Your task to perform on an android device: toggle translation in the chrome app Image 0: 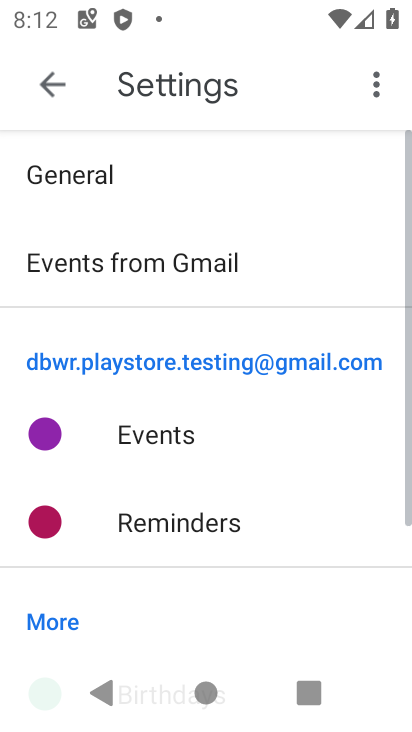
Step 0: drag from (267, 664) to (122, 125)
Your task to perform on an android device: toggle translation in the chrome app Image 1: 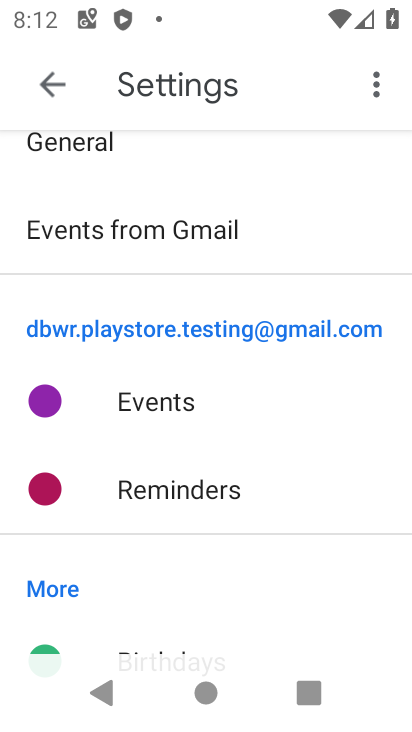
Step 1: click (50, 108)
Your task to perform on an android device: toggle translation in the chrome app Image 2: 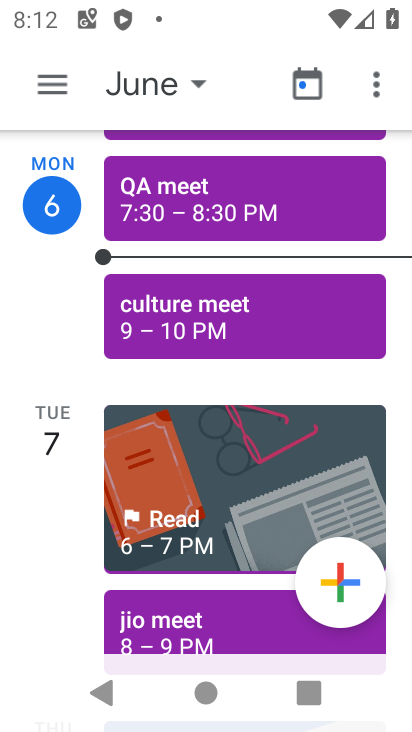
Step 2: press back button
Your task to perform on an android device: toggle translation in the chrome app Image 3: 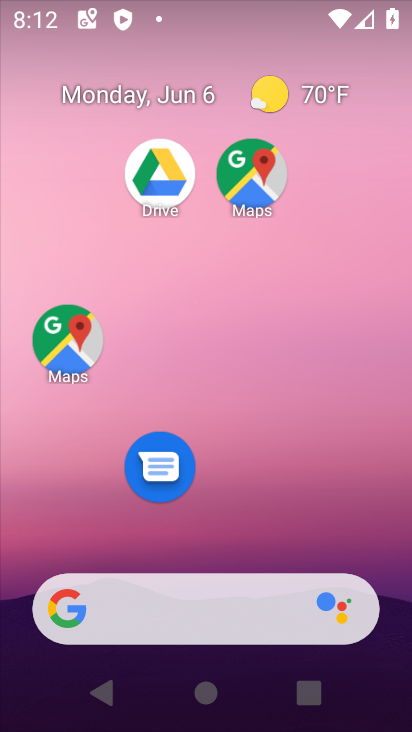
Step 3: drag from (259, 676) to (122, 56)
Your task to perform on an android device: toggle translation in the chrome app Image 4: 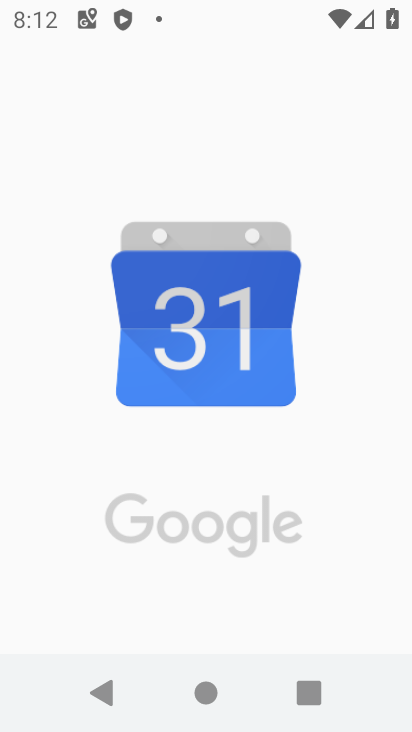
Step 4: drag from (275, 643) to (157, 8)
Your task to perform on an android device: toggle translation in the chrome app Image 5: 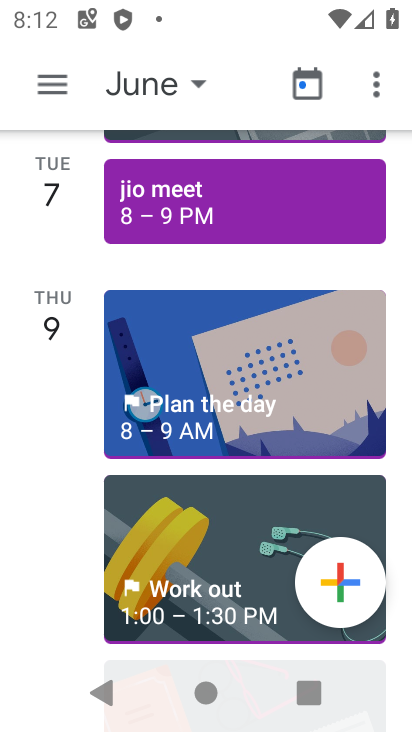
Step 5: press back button
Your task to perform on an android device: toggle translation in the chrome app Image 6: 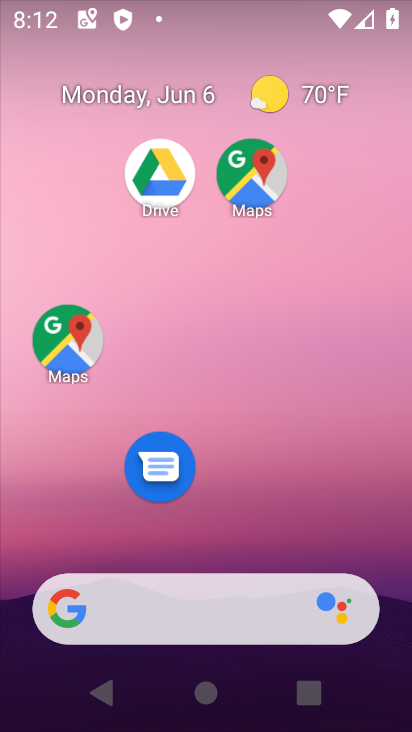
Step 6: drag from (264, 714) to (253, 83)
Your task to perform on an android device: toggle translation in the chrome app Image 7: 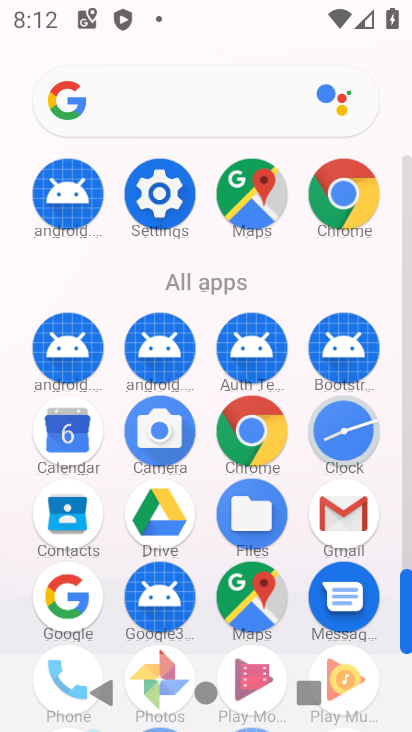
Step 7: click (345, 205)
Your task to perform on an android device: toggle translation in the chrome app Image 8: 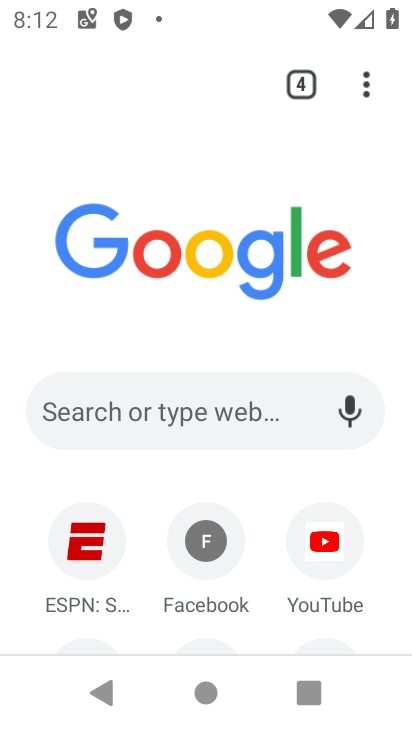
Step 8: press back button
Your task to perform on an android device: toggle translation in the chrome app Image 9: 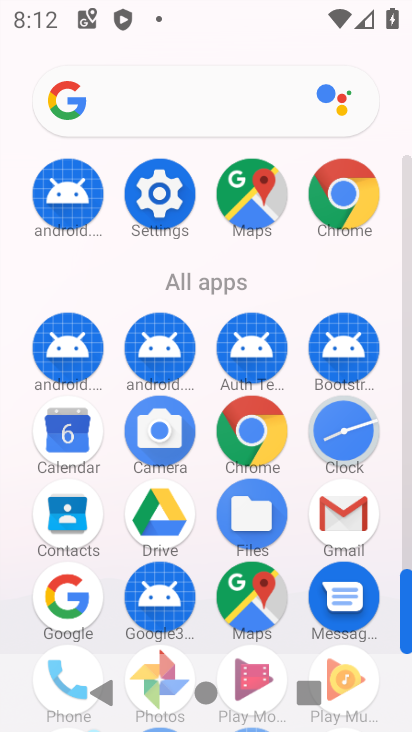
Step 9: click (336, 198)
Your task to perform on an android device: toggle translation in the chrome app Image 10: 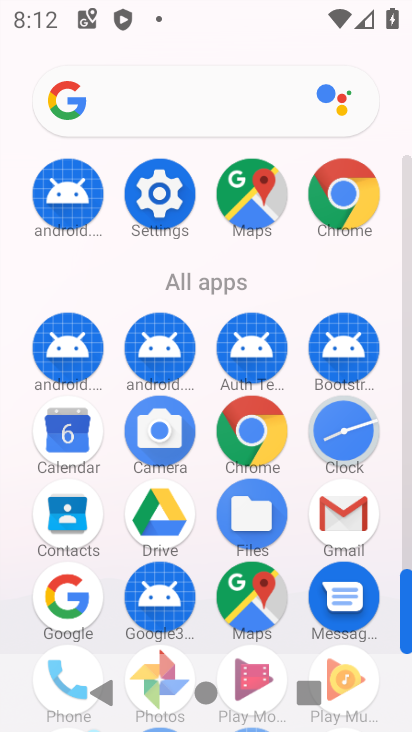
Step 10: click (336, 198)
Your task to perform on an android device: toggle translation in the chrome app Image 11: 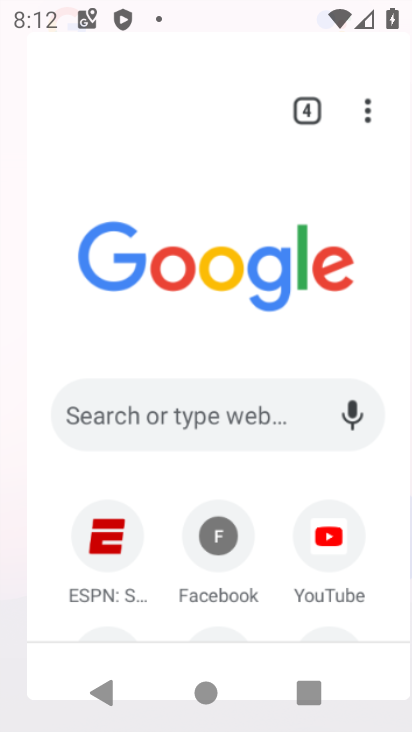
Step 11: click (336, 198)
Your task to perform on an android device: toggle translation in the chrome app Image 12: 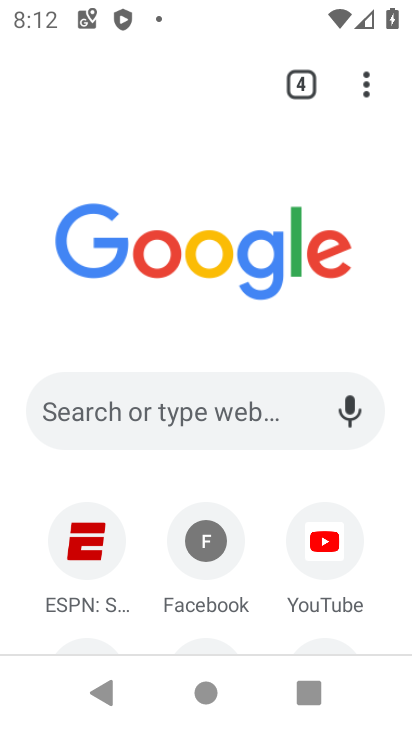
Step 12: click (365, 85)
Your task to perform on an android device: toggle translation in the chrome app Image 13: 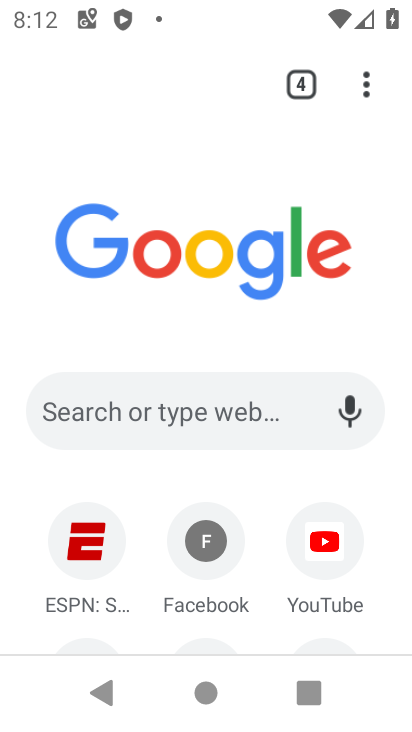
Step 13: click (368, 97)
Your task to perform on an android device: toggle translation in the chrome app Image 14: 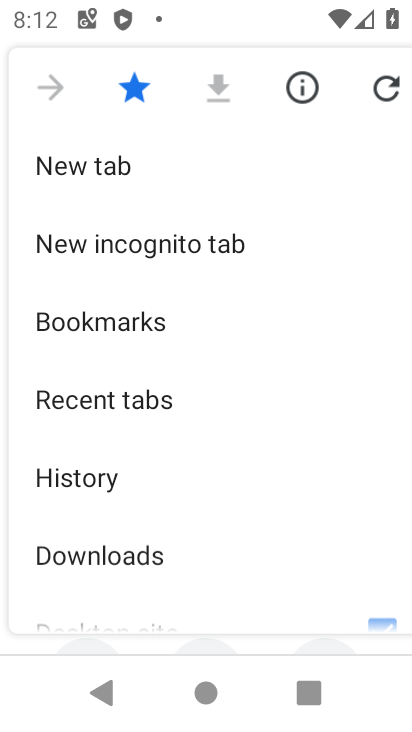
Step 14: drag from (364, 94) to (119, 309)
Your task to perform on an android device: toggle translation in the chrome app Image 15: 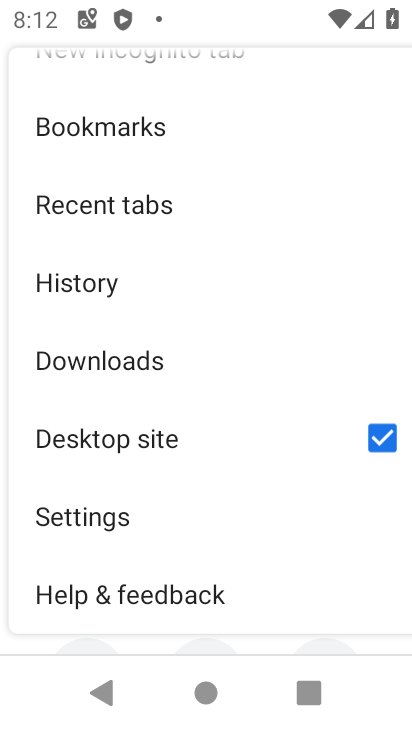
Step 15: click (78, 605)
Your task to perform on an android device: toggle translation in the chrome app Image 16: 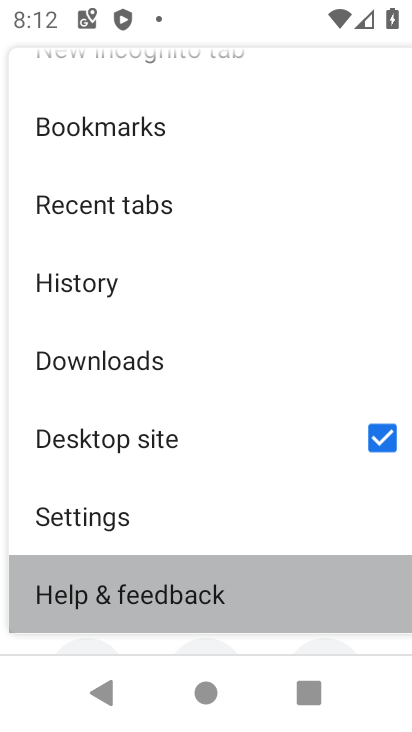
Step 16: click (77, 606)
Your task to perform on an android device: toggle translation in the chrome app Image 17: 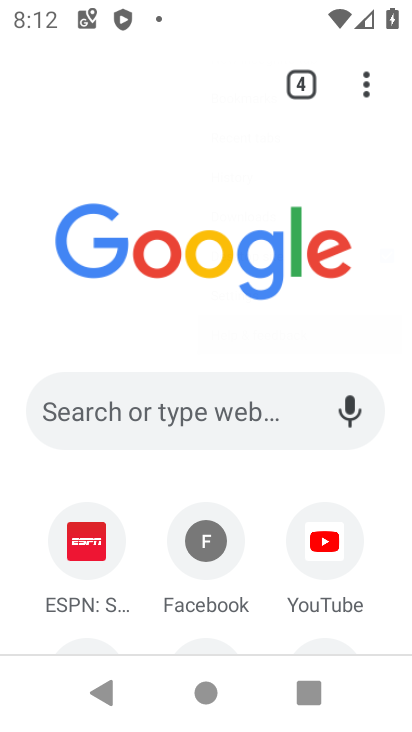
Step 17: click (77, 606)
Your task to perform on an android device: toggle translation in the chrome app Image 18: 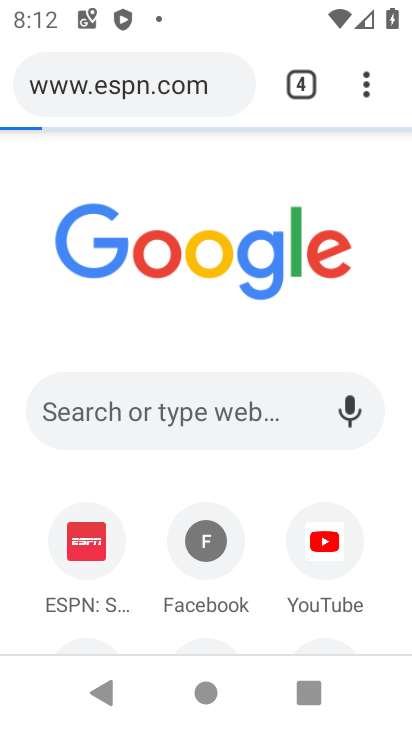
Step 18: click (78, 603)
Your task to perform on an android device: toggle translation in the chrome app Image 19: 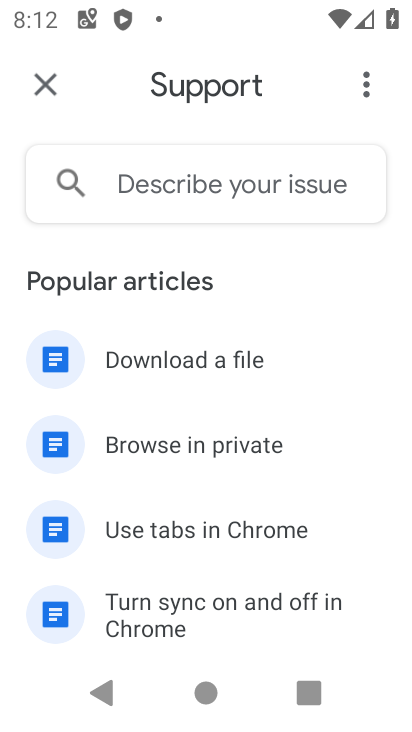
Step 19: click (32, 85)
Your task to perform on an android device: toggle translation in the chrome app Image 20: 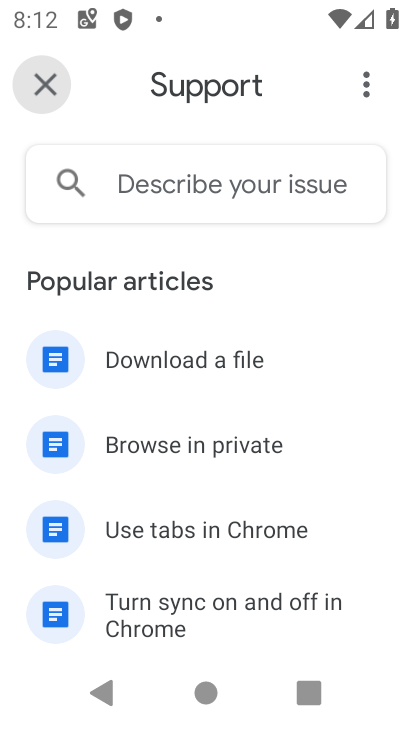
Step 20: click (38, 86)
Your task to perform on an android device: toggle translation in the chrome app Image 21: 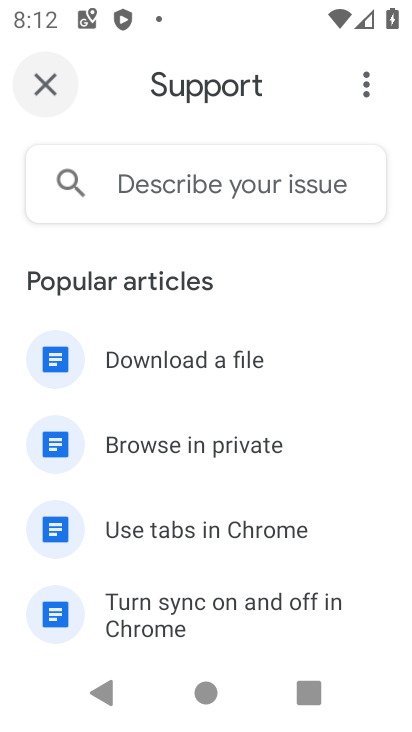
Step 21: click (43, 86)
Your task to perform on an android device: toggle translation in the chrome app Image 22: 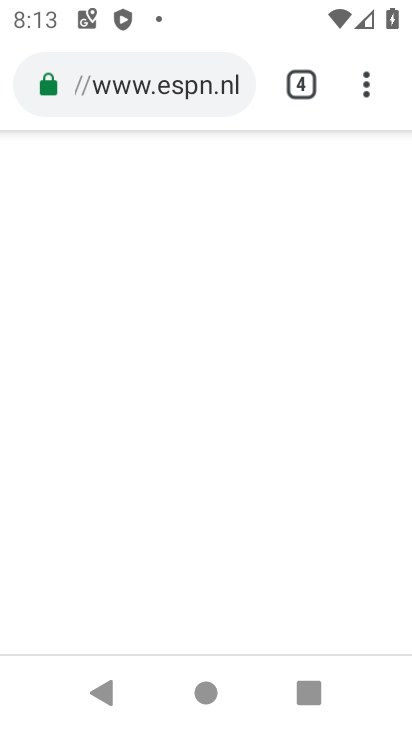
Step 22: click (361, 90)
Your task to perform on an android device: toggle translation in the chrome app Image 23: 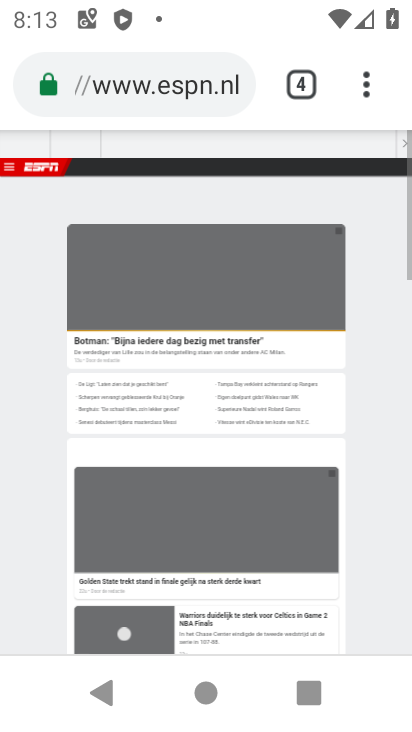
Step 23: drag from (363, 88) to (323, 203)
Your task to perform on an android device: toggle translation in the chrome app Image 24: 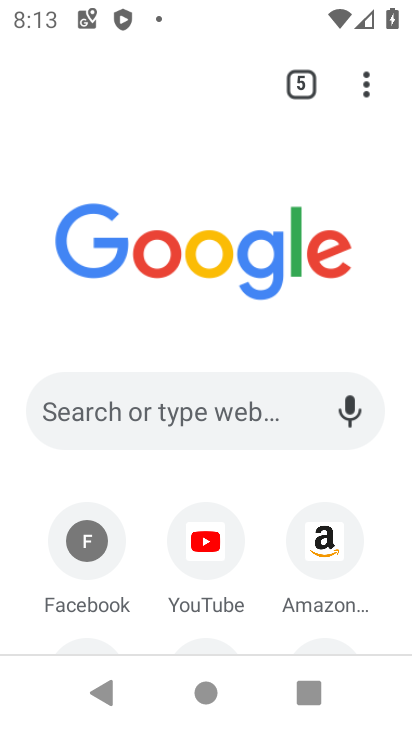
Step 24: drag from (369, 89) to (77, 519)
Your task to perform on an android device: toggle translation in the chrome app Image 25: 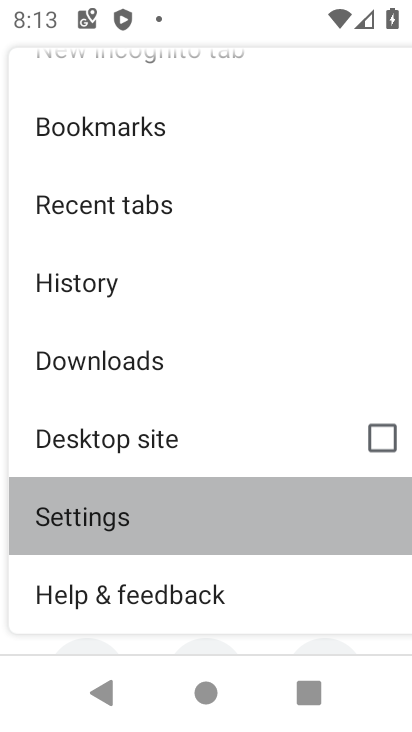
Step 25: click (77, 519)
Your task to perform on an android device: toggle translation in the chrome app Image 26: 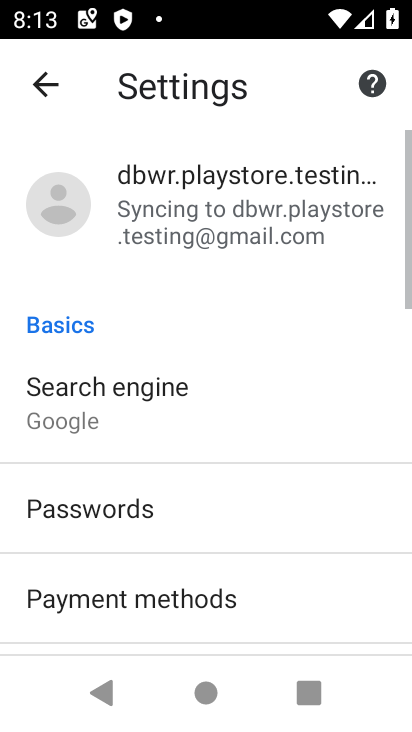
Step 26: click (125, 86)
Your task to perform on an android device: toggle translation in the chrome app Image 27: 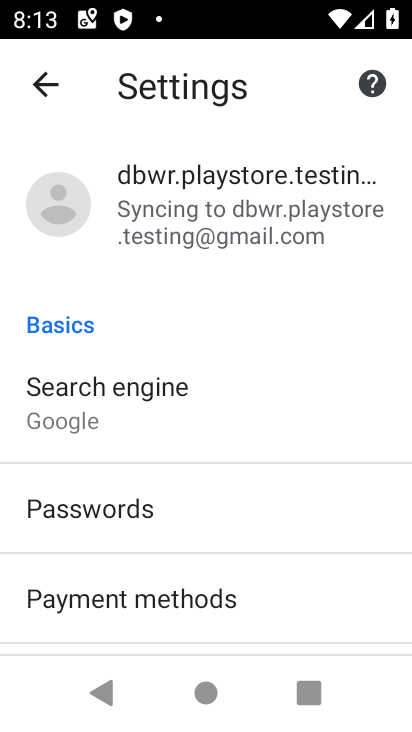
Step 27: drag from (126, 434) to (122, 172)
Your task to perform on an android device: toggle translation in the chrome app Image 28: 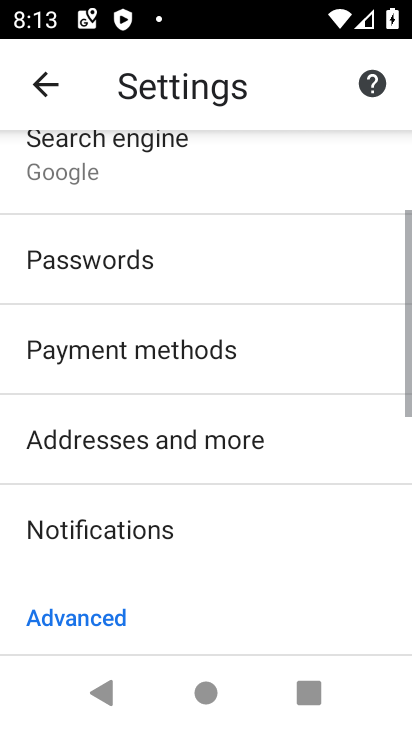
Step 28: drag from (165, 436) to (165, 199)
Your task to perform on an android device: toggle translation in the chrome app Image 29: 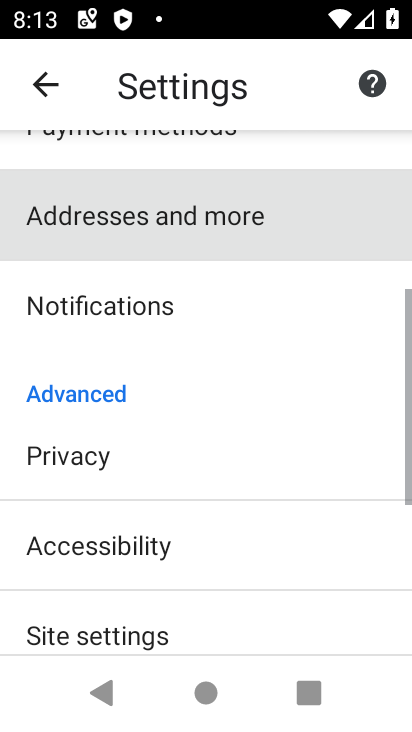
Step 29: drag from (156, 495) to (156, 193)
Your task to perform on an android device: toggle translation in the chrome app Image 30: 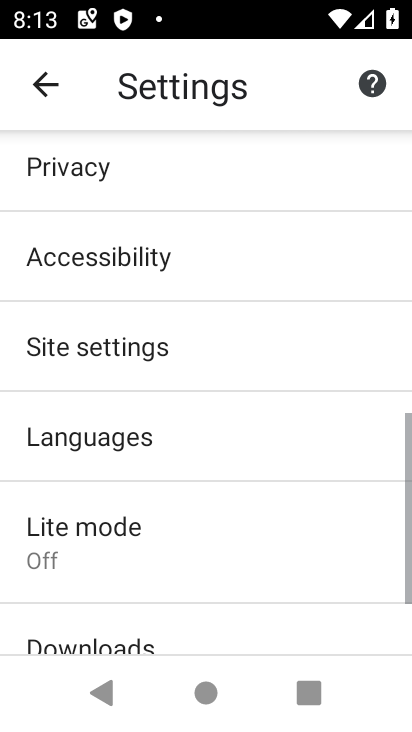
Step 30: drag from (130, 485) to (165, 209)
Your task to perform on an android device: toggle translation in the chrome app Image 31: 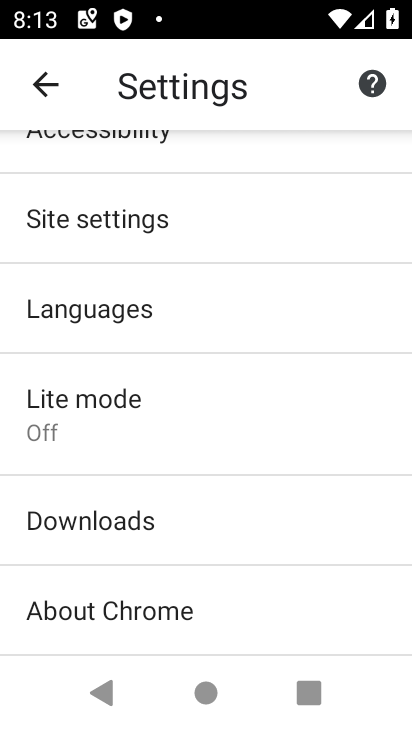
Step 31: click (93, 317)
Your task to perform on an android device: toggle translation in the chrome app Image 32: 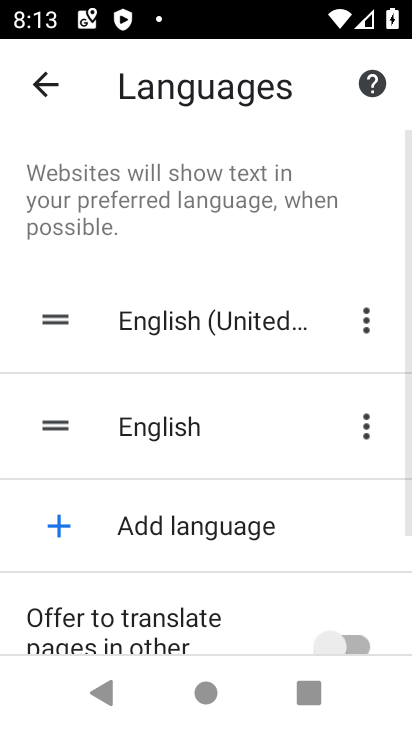
Step 32: drag from (251, 532) to (246, 269)
Your task to perform on an android device: toggle translation in the chrome app Image 33: 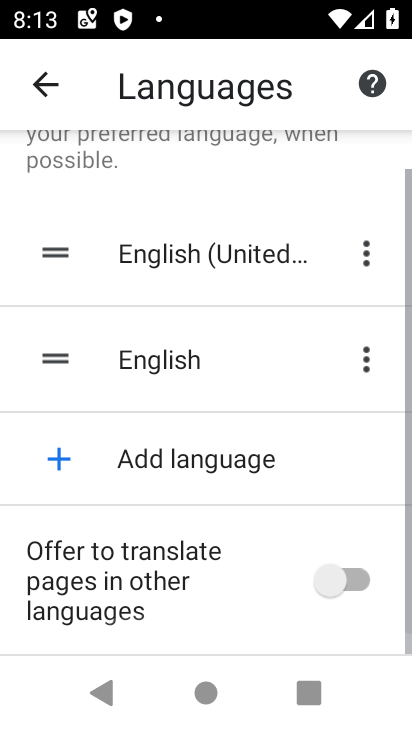
Step 33: drag from (243, 456) to (243, 308)
Your task to perform on an android device: toggle translation in the chrome app Image 34: 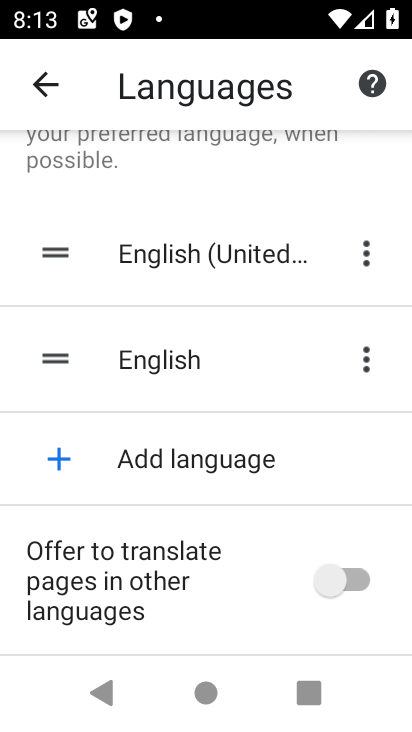
Step 34: click (329, 581)
Your task to perform on an android device: toggle translation in the chrome app Image 35: 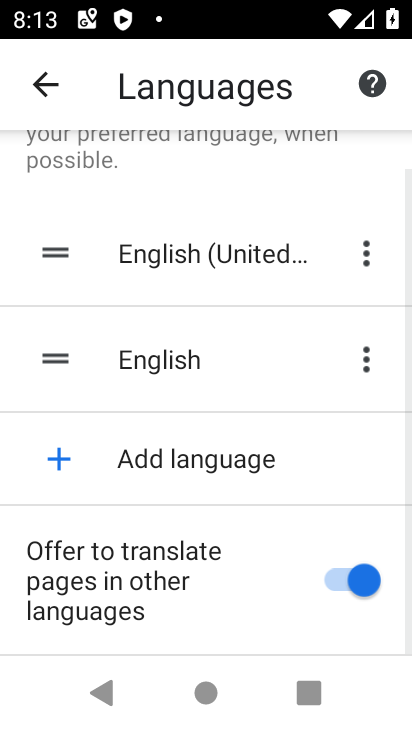
Step 35: task complete